Your task to perform on an android device: What's on my calendar tomorrow? Image 0: 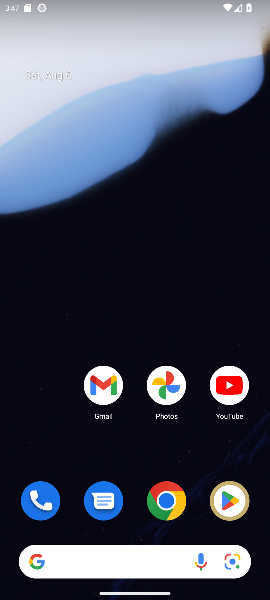
Step 0: drag from (38, 595) to (87, 279)
Your task to perform on an android device: What's on my calendar tomorrow? Image 1: 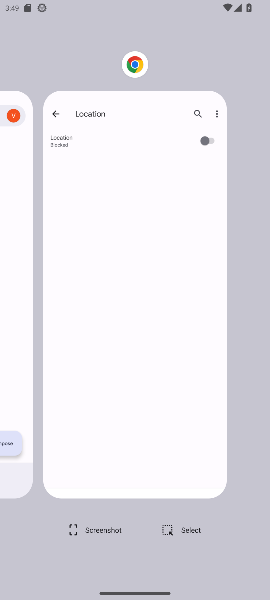
Step 1: press home button
Your task to perform on an android device: What's on my calendar tomorrow? Image 2: 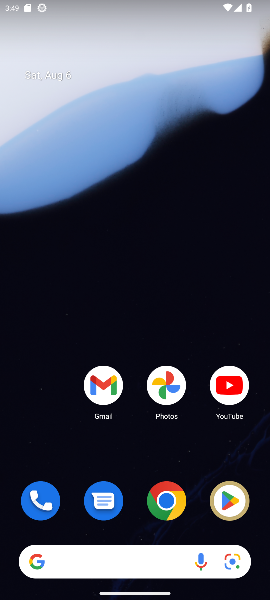
Step 2: drag from (33, 453) to (188, 24)
Your task to perform on an android device: What's on my calendar tomorrow? Image 3: 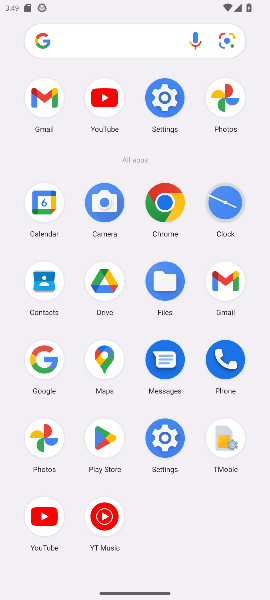
Step 3: click (42, 216)
Your task to perform on an android device: What's on my calendar tomorrow? Image 4: 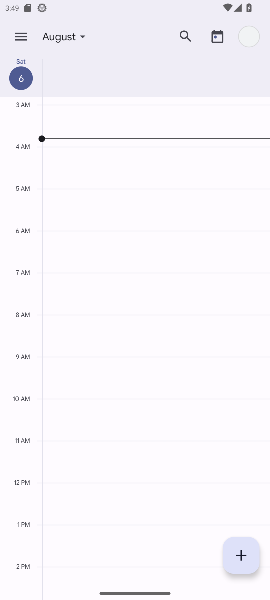
Step 4: task complete